Your task to perform on an android device: change text size in settings app Image 0: 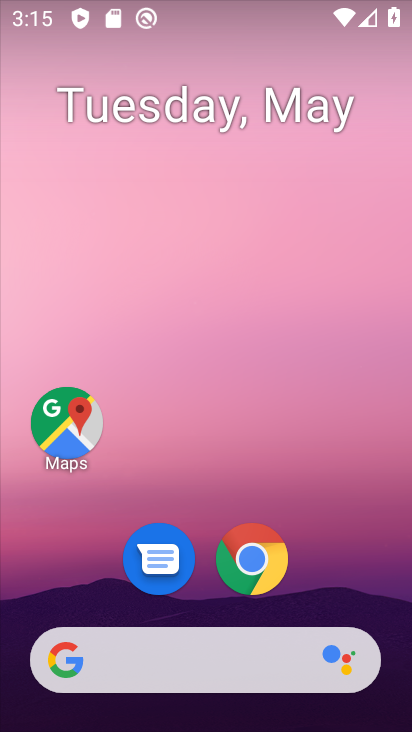
Step 0: drag from (344, 526) to (280, 31)
Your task to perform on an android device: change text size in settings app Image 1: 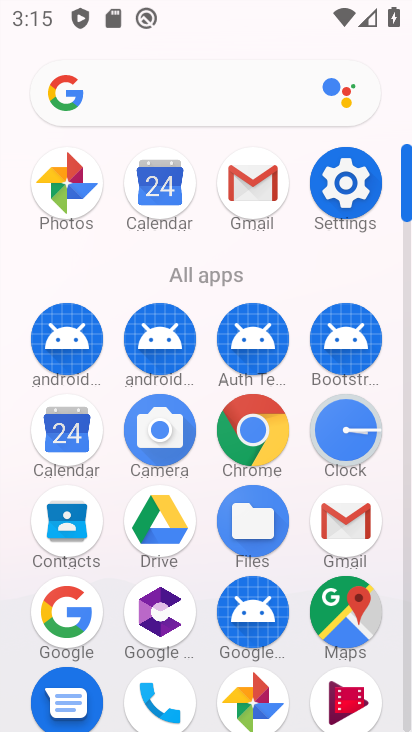
Step 1: click (347, 181)
Your task to perform on an android device: change text size in settings app Image 2: 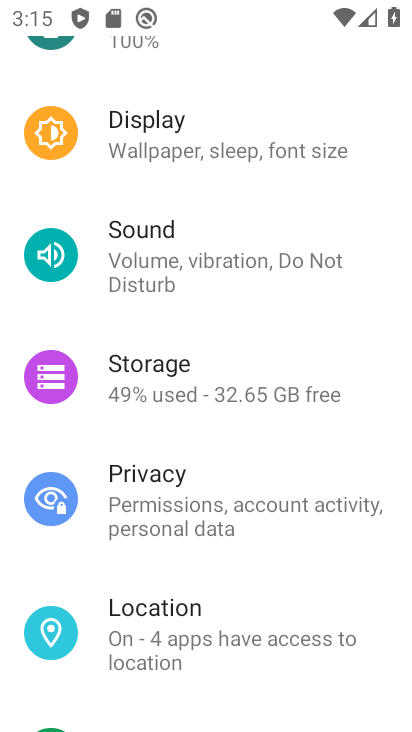
Step 2: drag from (232, 472) to (277, 360)
Your task to perform on an android device: change text size in settings app Image 3: 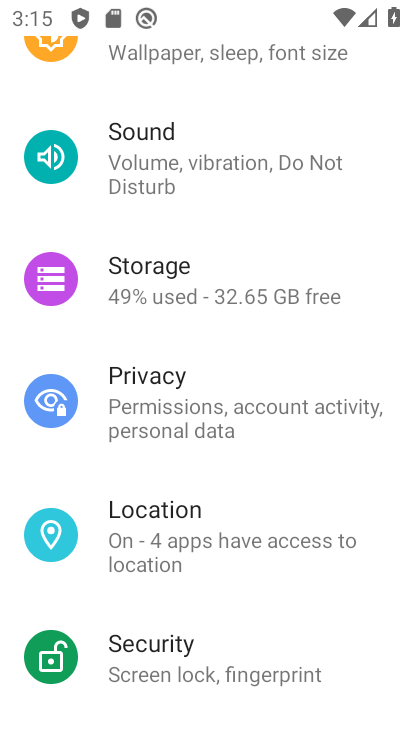
Step 3: drag from (245, 455) to (295, 375)
Your task to perform on an android device: change text size in settings app Image 4: 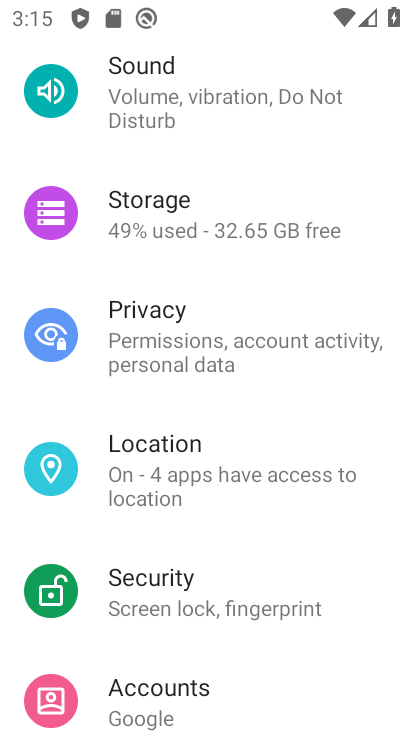
Step 4: drag from (219, 536) to (260, 432)
Your task to perform on an android device: change text size in settings app Image 5: 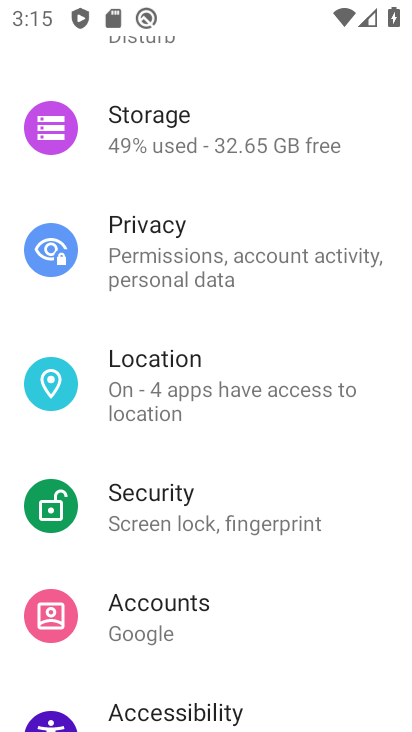
Step 5: drag from (180, 552) to (237, 445)
Your task to perform on an android device: change text size in settings app Image 6: 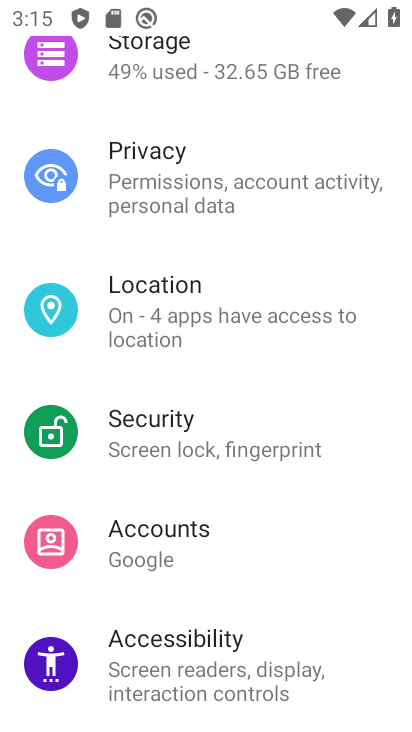
Step 6: drag from (139, 584) to (221, 453)
Your task to perform on an android device: change text size in settings app Image 7: 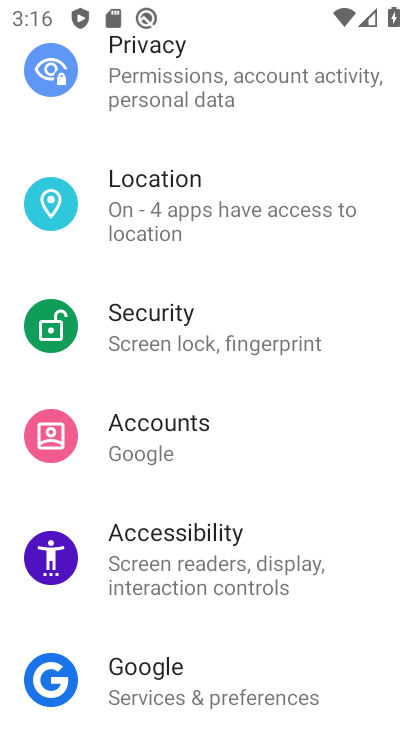
Step 7: click (174, 539)
Your task to perform on an android device: change text size in settings app Image 8: 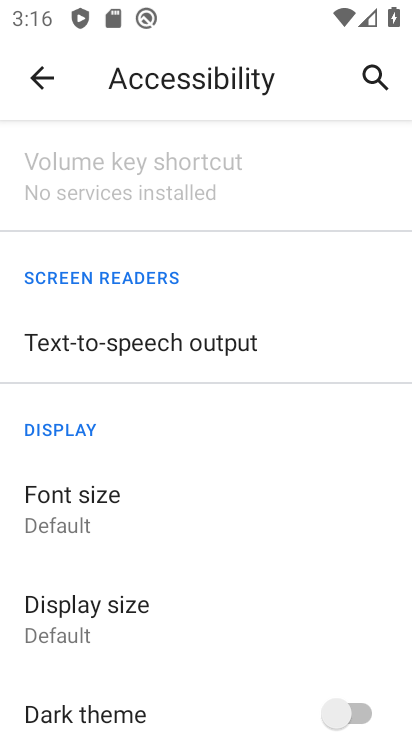
Step 8: click (91, 522)
Your task to perform on an android device: change text size in settings app Image 9: 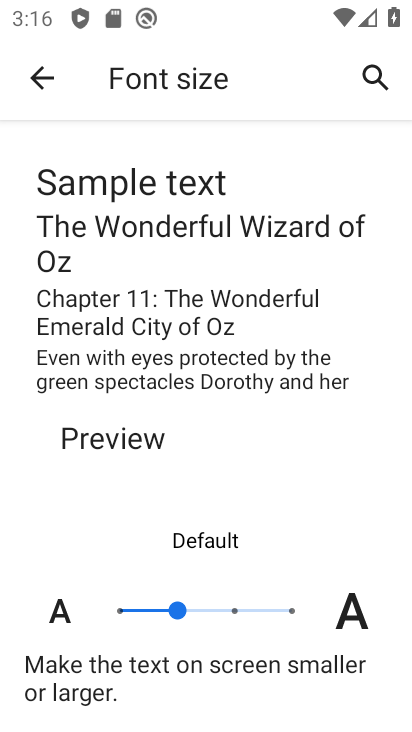
Step 9: click (123, 613)
Your task to perform on an android device: change text size in settings app Image 10: 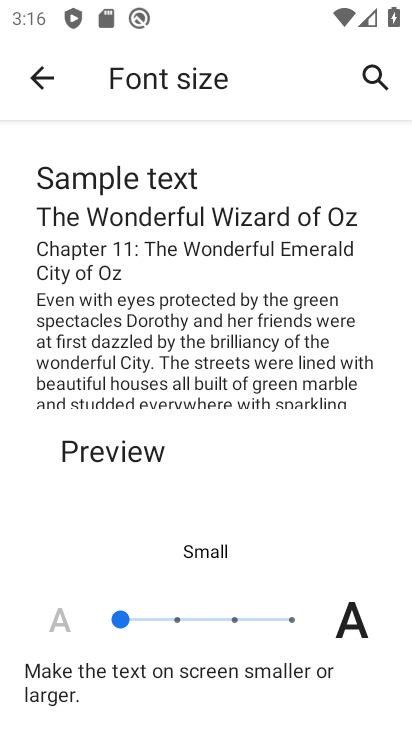
Step 10: task complete